Your task to perform on an android device: How much does a 3 bedroom apartment rent for in Atlanta? Image 0: 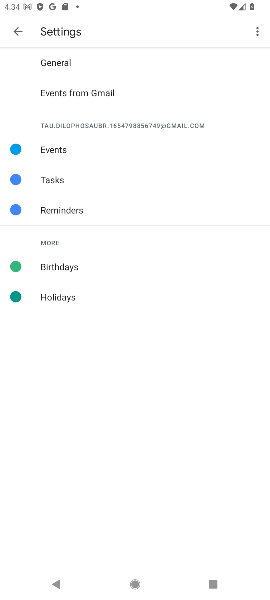
Step 0: press home button
Your task to perform on an android device: How much does a 3 bedroom apartment rent for in Atlanta? Image 1: 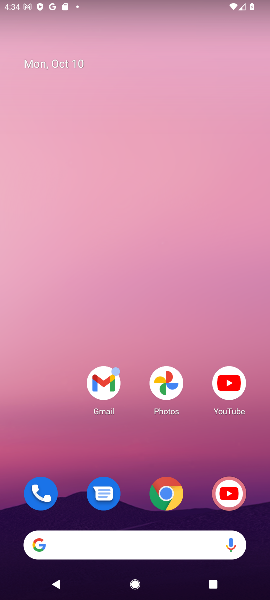
Step 1: click (101, 551)
Your task to perform on an android device: How much does a 3 bedroom apartment rent for in Atlanta? Image 2: 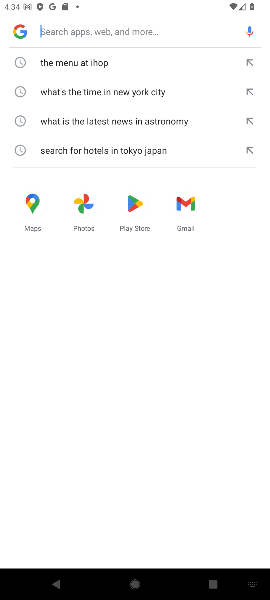
Step 2: type "How much does a 3 bedroom apartment rent for in Atlanta?"
Your task to perform on an android device: How much does a 3 bedroom apartment rent for in Atlanta? Image 3: 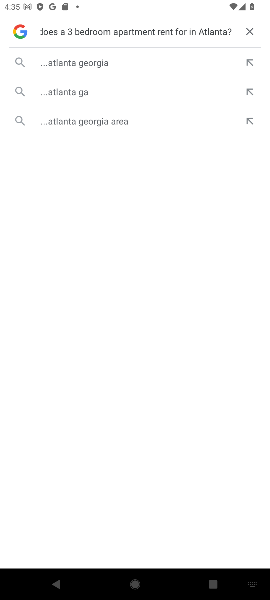
Step 3: task complete